Your task to perform on an android device: check battery use Image 0: 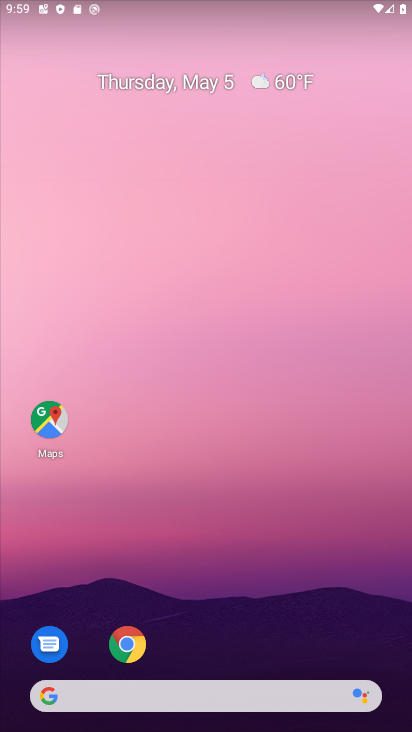
Step 0: drag from (268, 532) to (270, 136)
Your task to perform on an android device: check battery use Image 1: 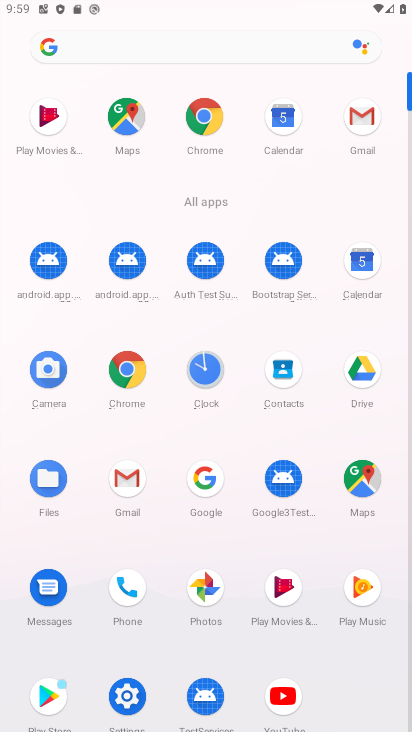
Step 1: click (135, 698)
Your task to perform on an android device: check battery use Image 2: 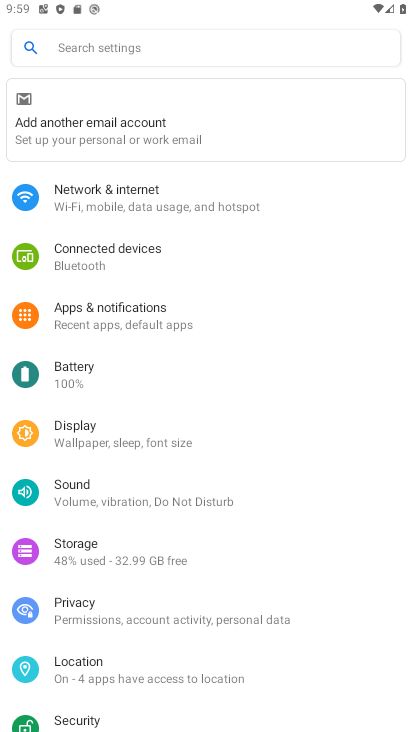
Step 2: drag from (155, 660) to (167, 444)
Your task to perform on an android device: check battery use Image 3: 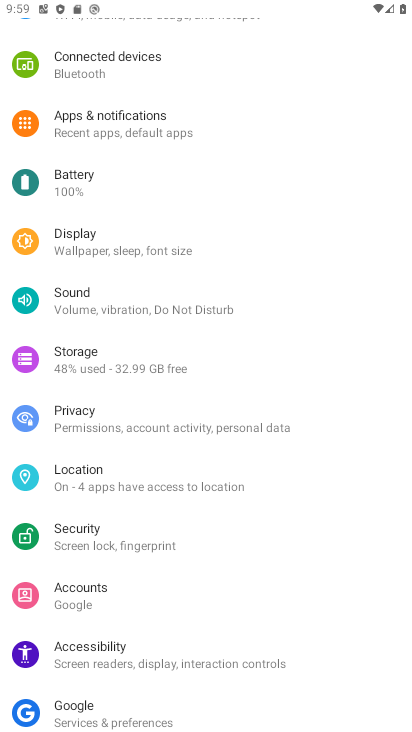
Step 3: click (133, 196)
Your task to perform on an android device: check battery use Image 4: 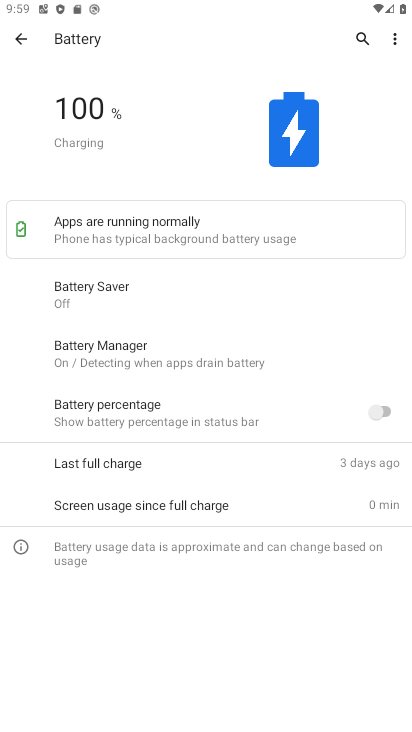
Step 4: task complete